Your task to perform on an android device: star an email in the gmail app Image 0: 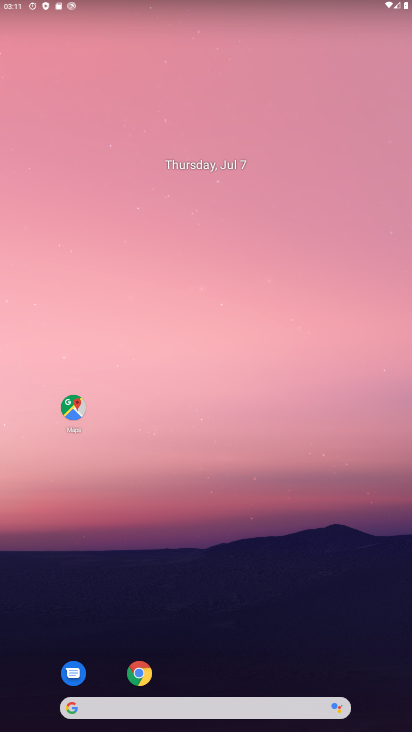
Step 0: drag from (231, 631) to (220, 202)
Your task to perform on an android device: star an email in the gmail app Image 1: 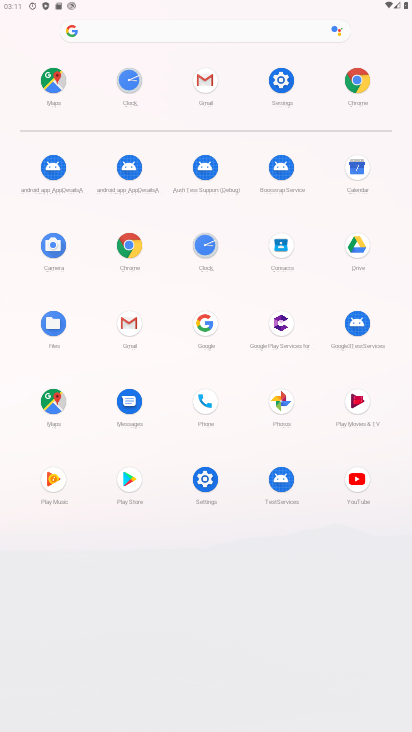
Step 1: click (206, 94)
Your task to perform on an android device: star an email in the gmail app Image 2: 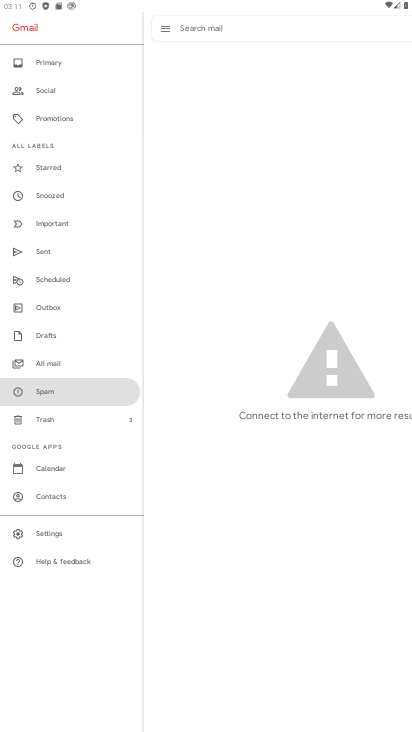
Step 2: task complete